Your task to perform on an android device: change the clock display to show seconds Image 0: 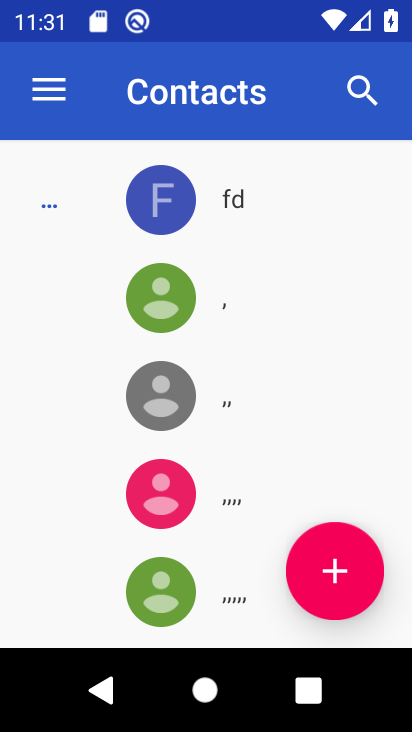
Step 0: press home button
Your task to perform on an android device: change the clock display to show seconds Image 1: 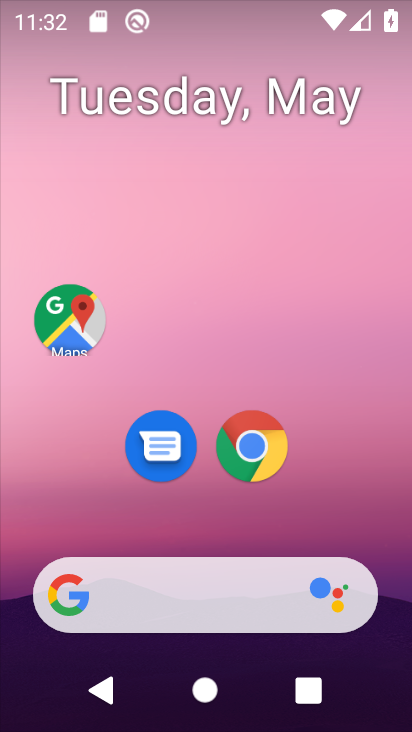
Step 1: drag from (264, 200) to (254, 101)
Your task to perform on an android device: change the clock display to show seconds Image 2: 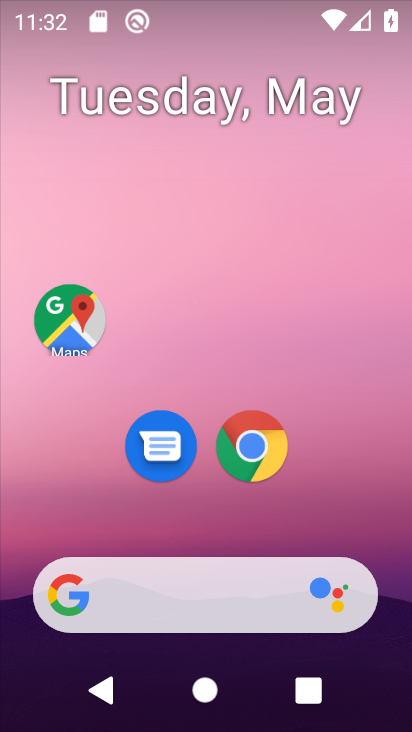
Step 2: drag from (368, 524) to (343, 261)
Your task to perform on an android device: change the clock display to show seconds Image 3: 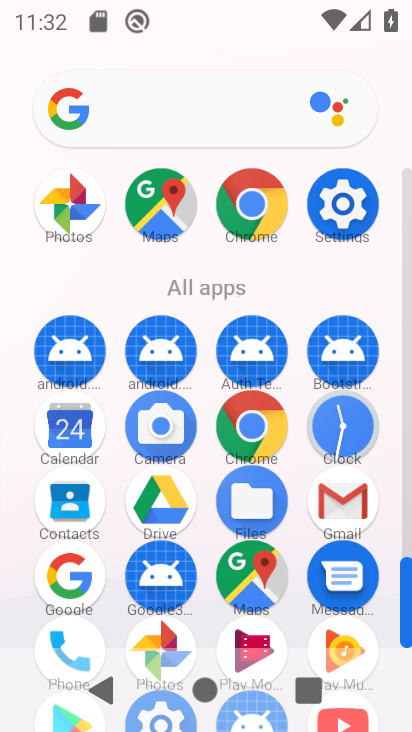
Step 3: click (331, 418)
Your task to perform on an android device: change the clock display to show seconds Image 4: 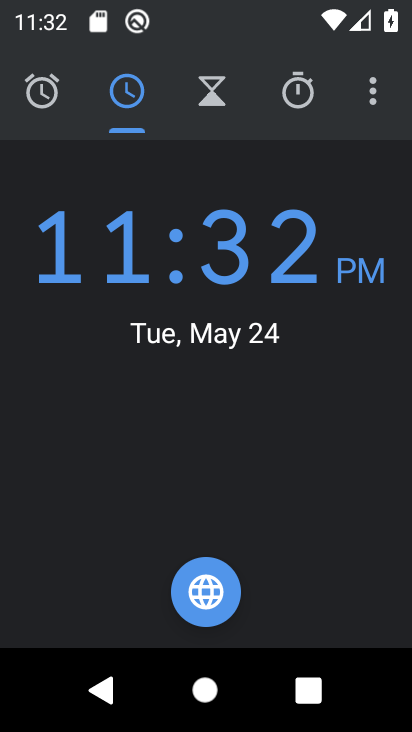
Step 4: click (367, 82)
Your task to perform on an android device: change the clock display to show seconds Image 5: 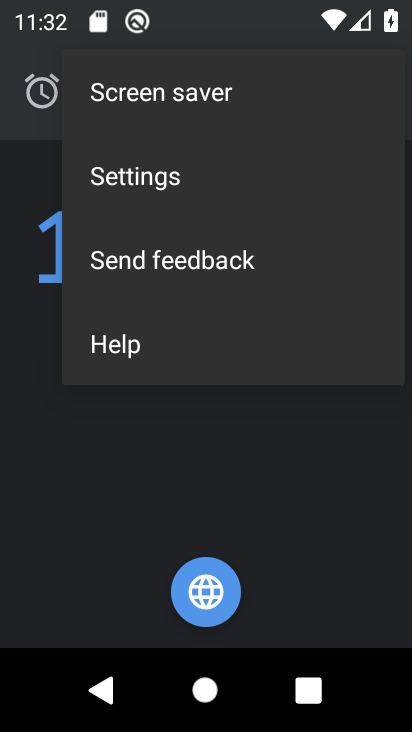
Step 5: click (196, 186)
Your task to perform on an android device: change the clock display to show seconds Image 6: 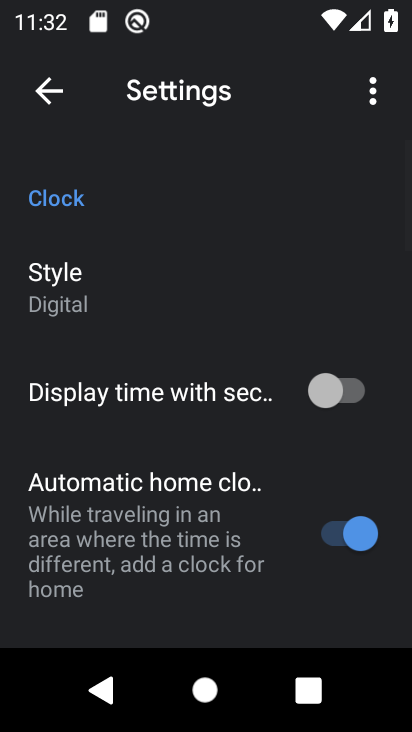
Step 6: click (241, 398)
Your task to perform on an android device: change the clock display to show seconds Image 7: 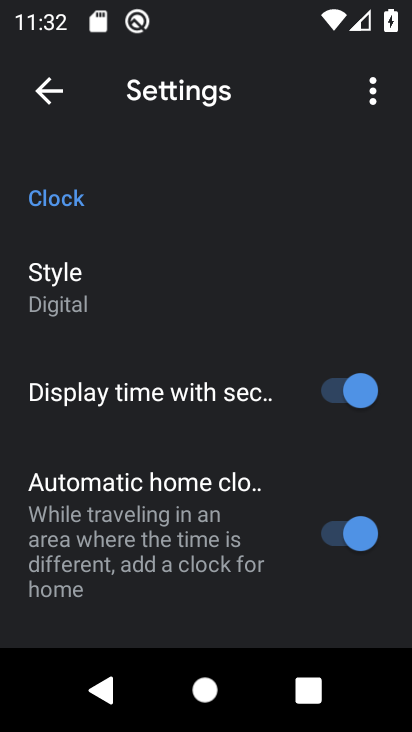
Step 7: task complete